Your task to perform on an android device: set the stopwatch Image 0: 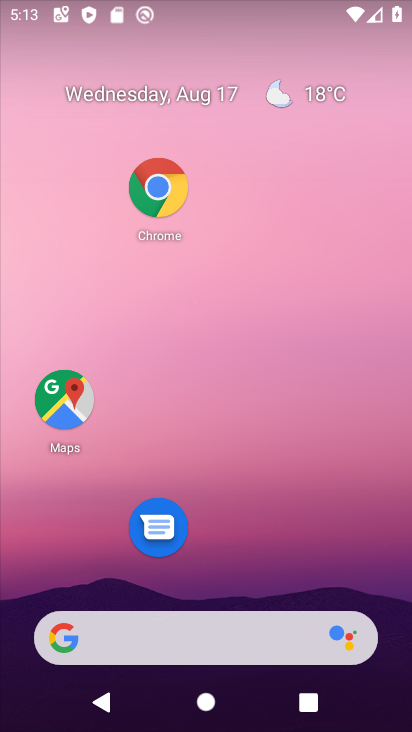
Step 0: drag from (252, 580) to (286, 122)
Your task to perform on an android device: set the stopwatch Image 1: 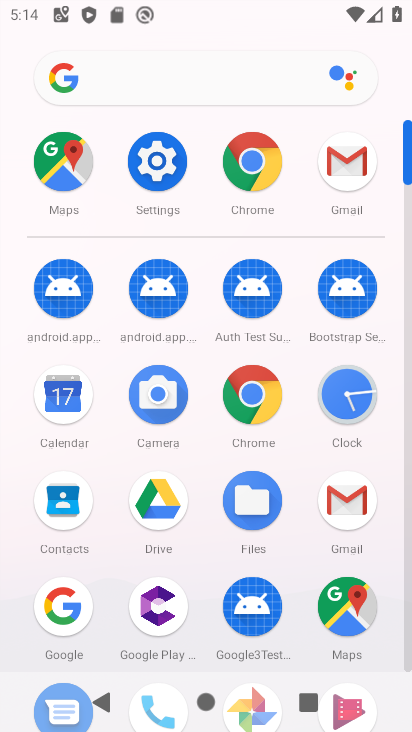
Step 1: drag from (207, 589) to (201, 324)
Your task to perform on an android device: set the stopwatch Image 2: 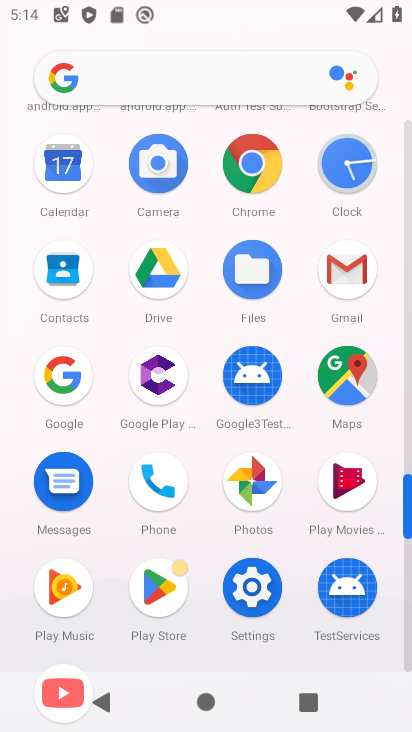
Step 2: click (360, 189)
Your task to perform on an android device: set the stopwatch Image 3: 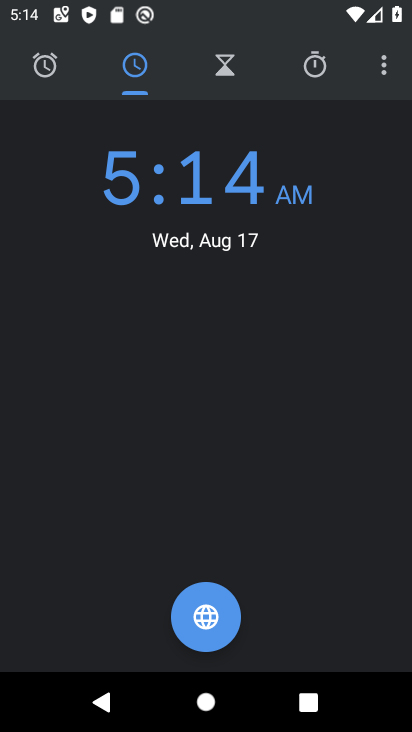
Step 3: click (314, 65)
Your task to perform on an android device: set the stopwatch Image 4: 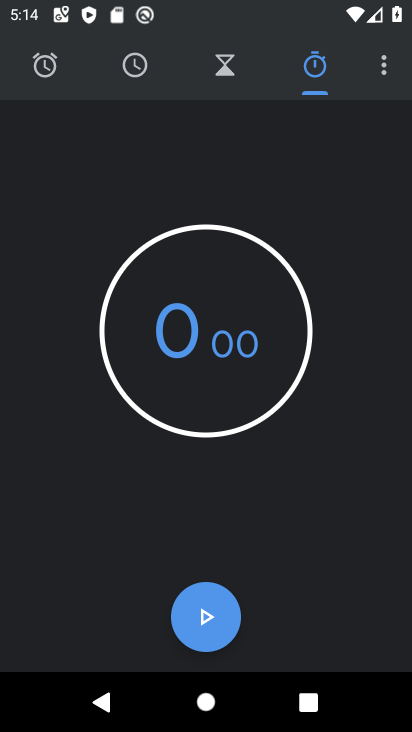
Step 4: click (215, 628)
Your task to perform on an android device: set the stopwatch Image 5: 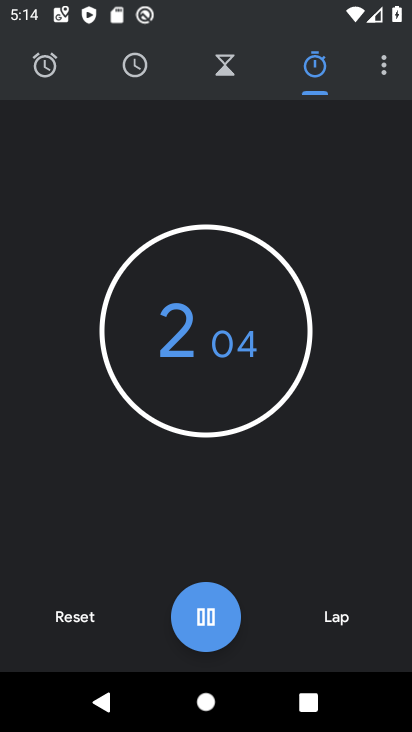
Step 5: task complete